Your task to perform on an android device: turn off notifications settings in the gmail app Image 0: 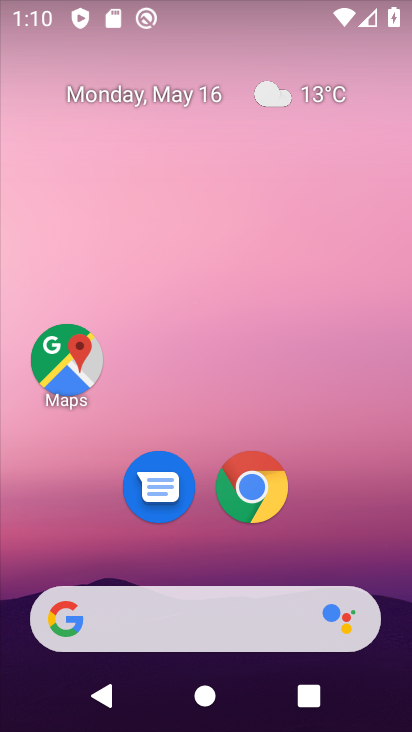
Step 0: click (265, 134)
Your task to perform on an android device: turn off notifications settings in the gmail app Image 1: 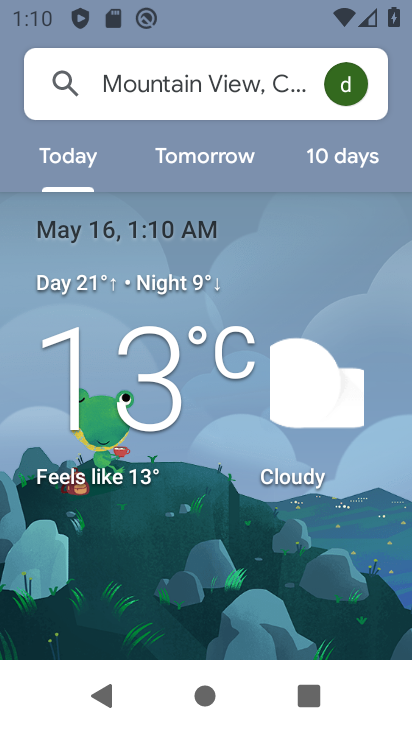
Step 1: press home button
Your task to perform on an android device: turn off notifications settings in the gmail app Image 2: 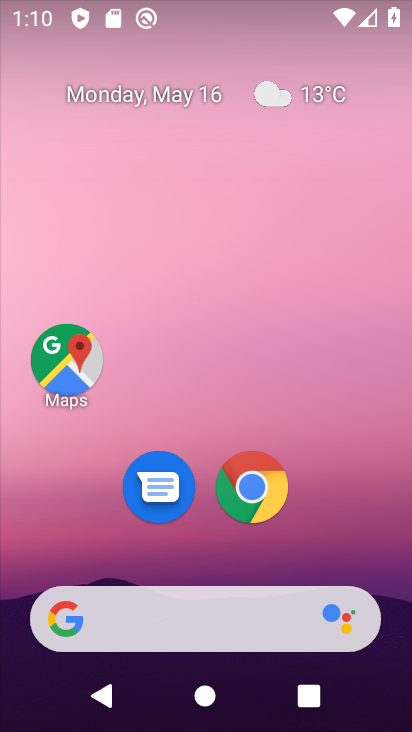
Step 2: drag from (194, 492) to (179, 117)
Your task to perform on an android device: turn off notifications settings in the gmail app Image 3: 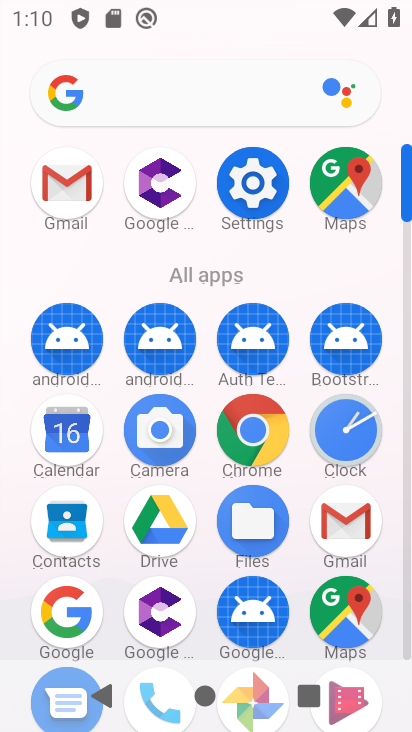
Step 3: click (31, 191)
Your task to perform on an android device: turn off notifications settings in the gmail app Image 4: 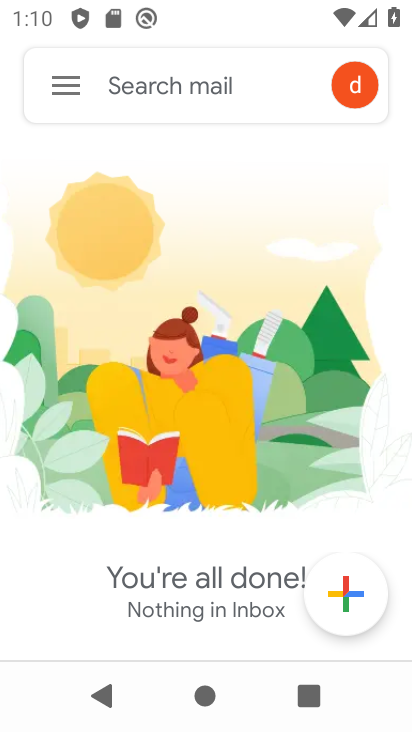
Step 4: click (79, 91)
Your task to perform on an android device: turn off notifications settings in the gmail app Image 5: 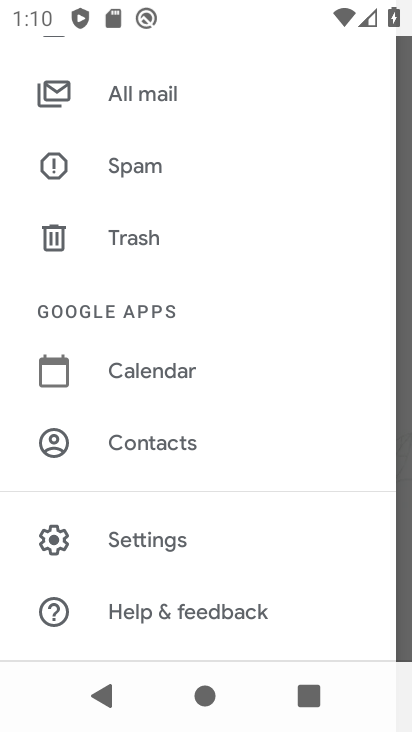
Step 5: click (137, 529)
Your task to perform on an android device: turn off notifications settings in the gmail app Image 6: 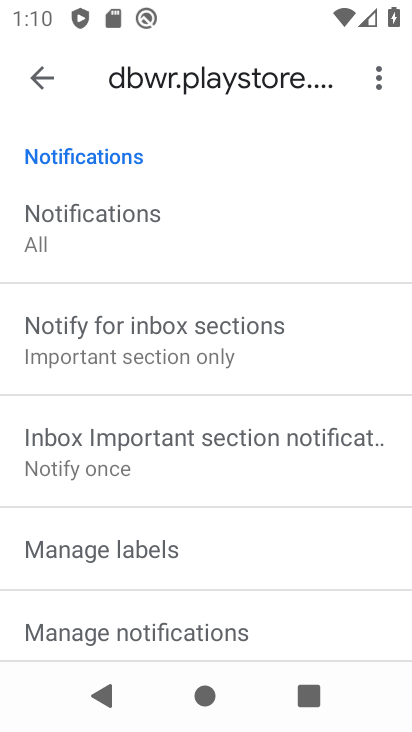
Step 6: click (179, 238)
Your task to perform on an android device: turn off notifications settings in the gmail app Image 7: 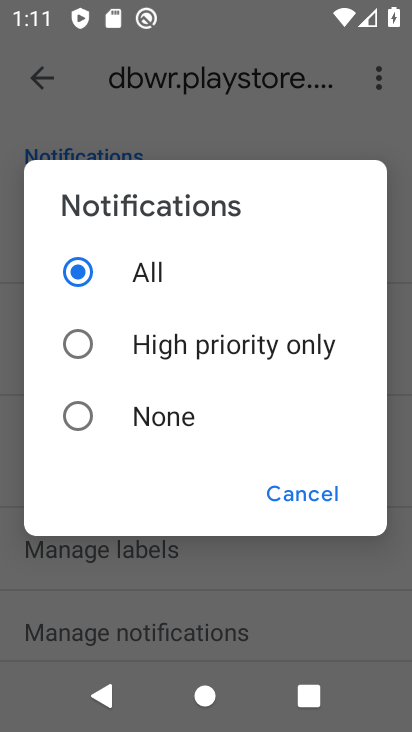
Step 7: click (158, 406)
Your task to perform on an android device: turn off notifications settings in the gmail app Image 8: 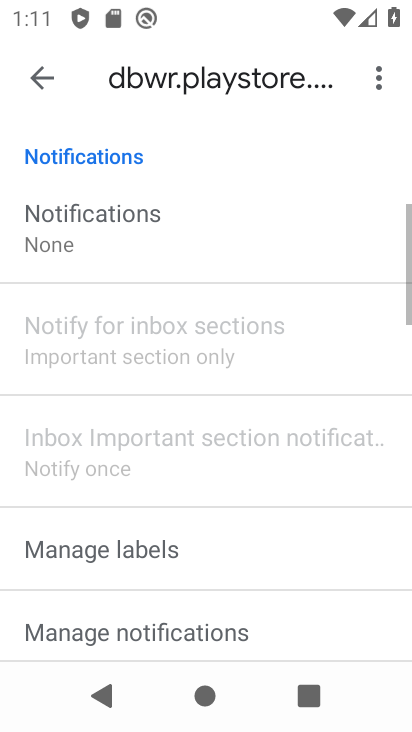
Step 8: click (132, 407)
Your task to perform on an android device: turn off notifications settings in the gmail app Image 9: 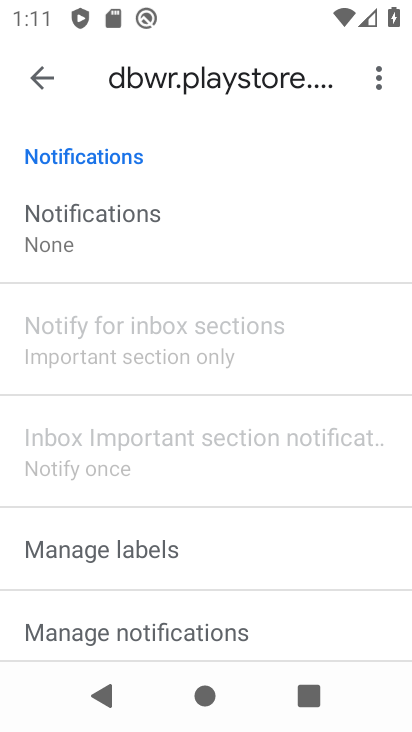
Step 9: task complete